Your task to perform on an android device: Show me popular videos on Youtube Image 0: 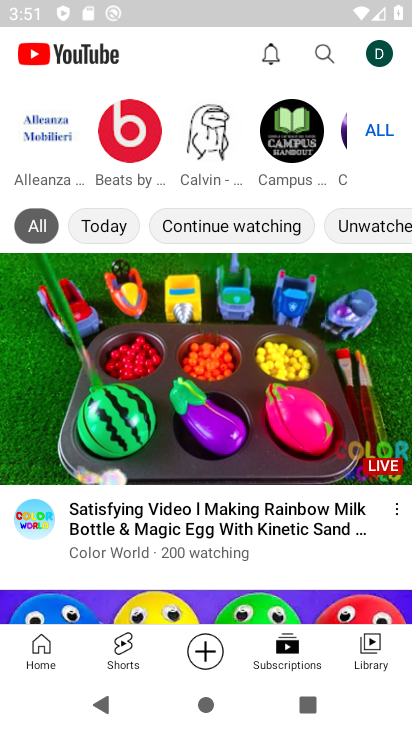
Step 0: click (45, 644)
Your task to perform on an android device: Show me popular videos on Youtube Image 1: 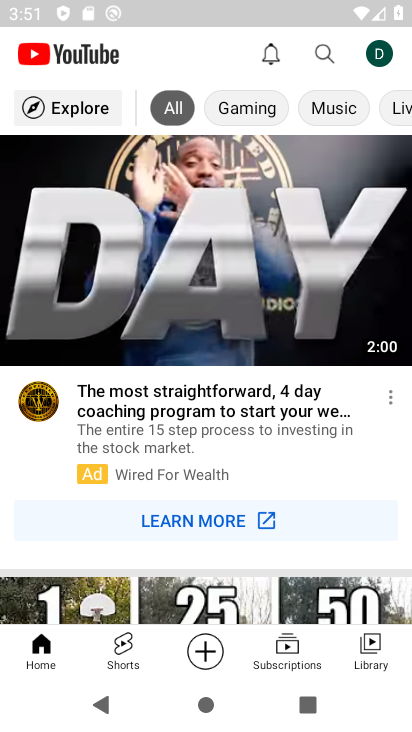
Step 1: click (76, 107)
Your task to perform on an android device: Show me popular videos on Youtube Image 2: 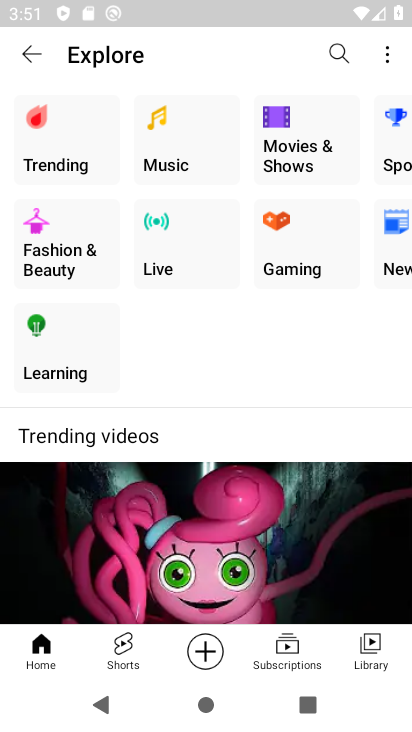
Step 2: click (56, 151)
Your task to perform on an android device: Show me popular videos on Youtube Image 3: 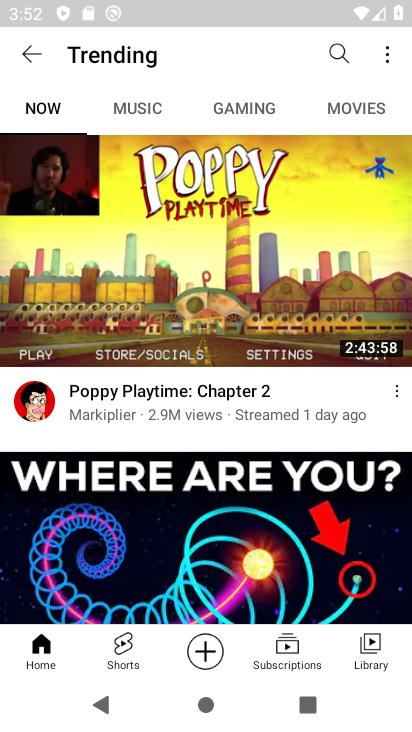
Step 3: task complete